Your task to perform on an android device: Play the last video I watched on Youtube Image 0: 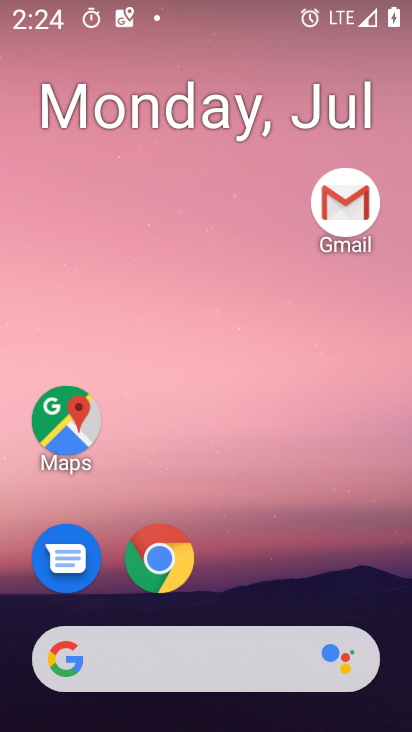
Step 0: drag from (309, 561) to (288, 95)
Your task to perform on an android device: Play the last video I watched on Youtube Image 1: 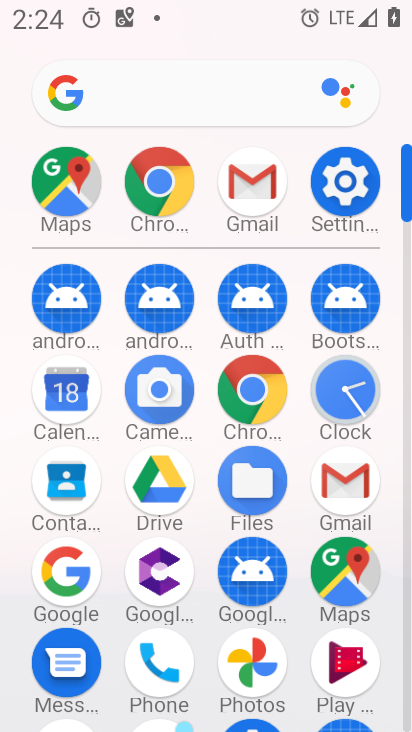
Step 1: drag from (379, 535) to (392, 297)
Your task to perform on an android device: Play the last video I watched on Youtube Image 2: 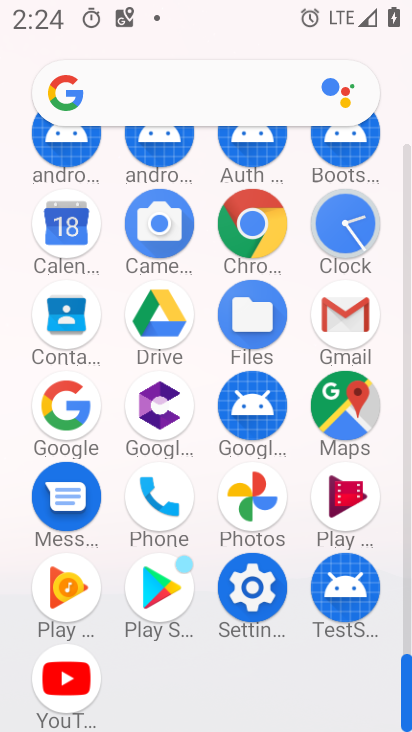
Step 2: click (77, 677)
Your task to perform on an android device: Play the last video I watched on Youtube Image 3: 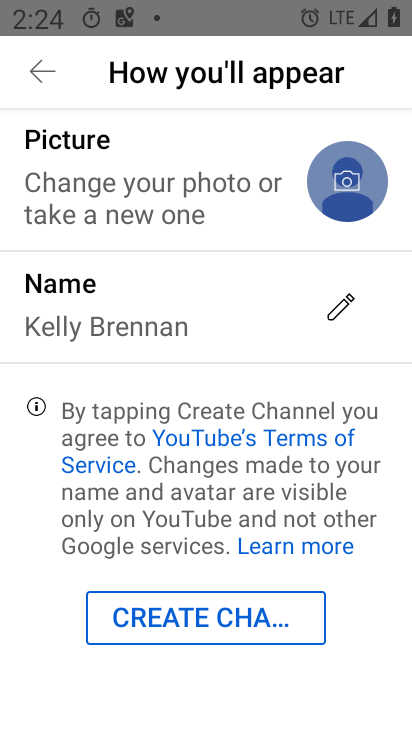
Step 3: press back button
Your task to perform on an android device: Play the last video I watched on Youtube Image 4: 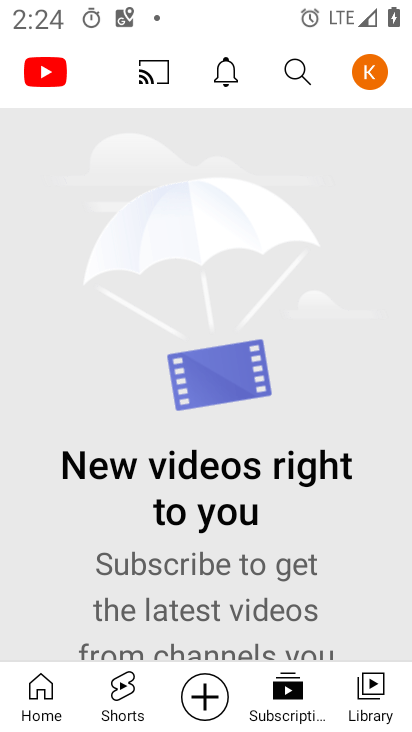
Step 4: click (376, 695)
Your task to perform on an android device: Play the last video I watched on Youtube Image 5: 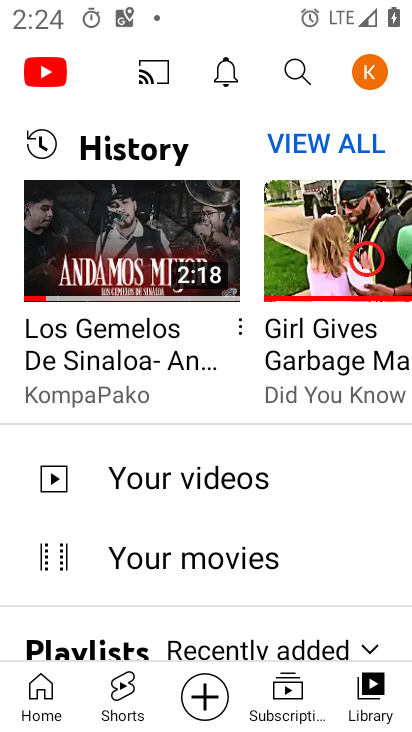
Step 5: click (110, 239)
Your task to perform on an android device: Play the last video I watched on Youtube Image 6: 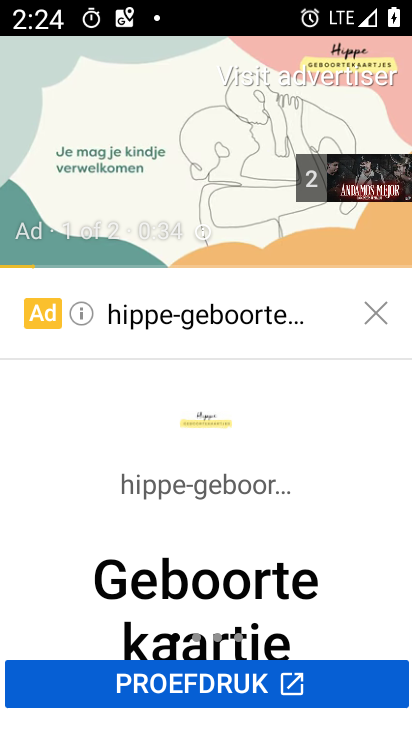
Step 6: task complete